Your task to perform on an android device: Open CNN.com Image 0: 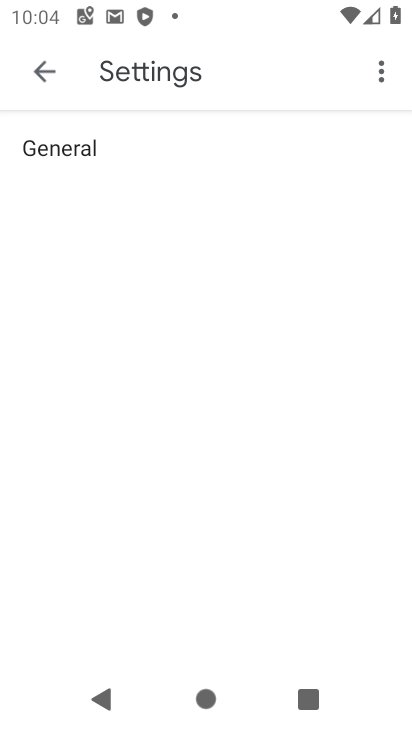
Step 0: press home button
Your task to perform on an android device: Open CNN.com Image 1: 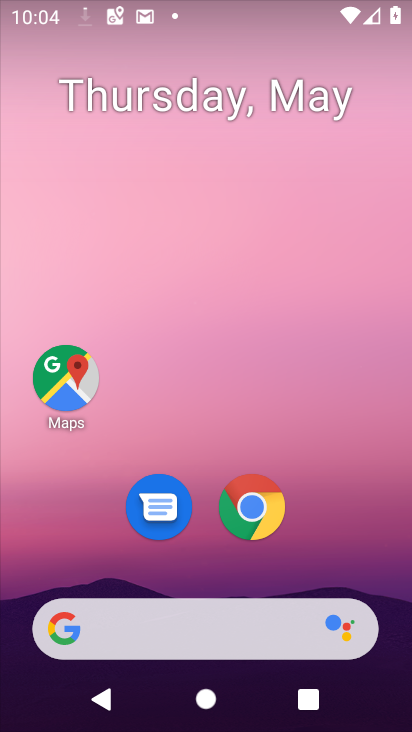
Step 1: click (258, 524)
Your task to perform on an android device: Open CNN.com Image 2: 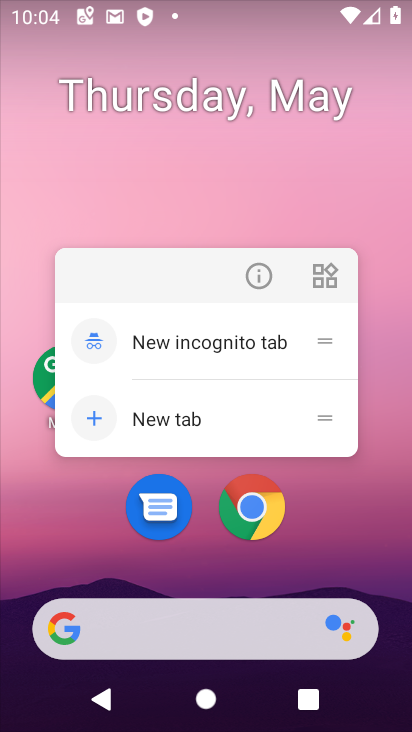
Step 2: click (263, 511)
Your task to perform on an android device: Open CNN.com Image 3: 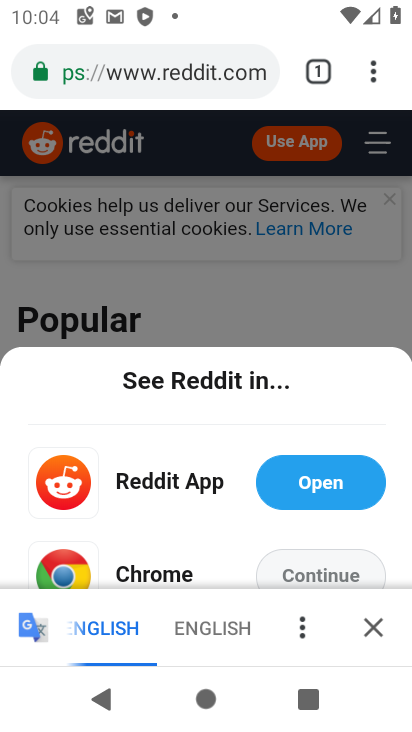
Step 3: click (313, 73)
Your task to perform on an android device: Open CNN.com Image 4: 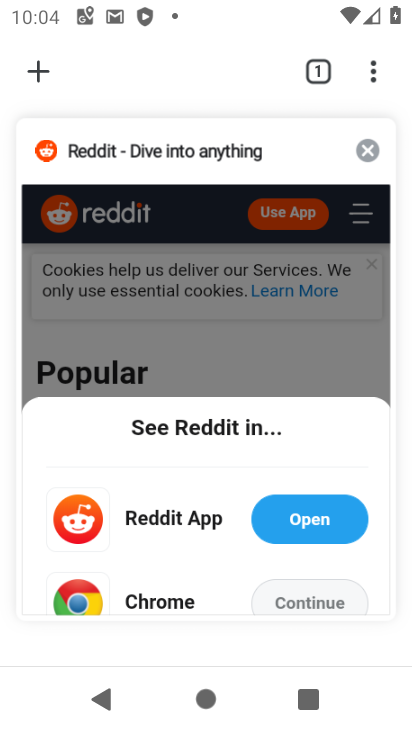
Step 4: click (371, 154)
Your task to perform on an android device: Open CNN.com Image 5: 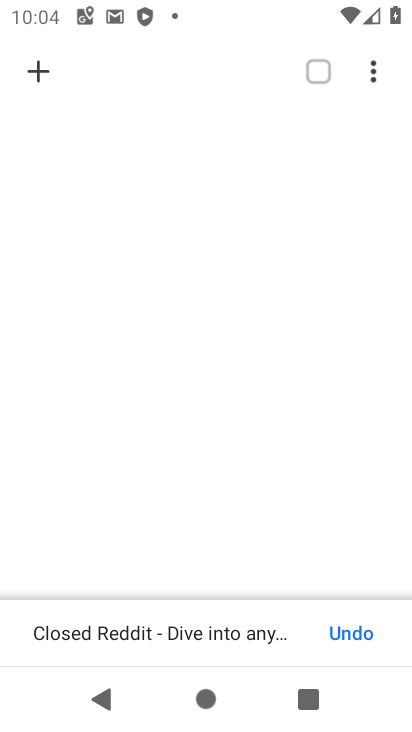
Step 5: click (36, 75)
Your task to perform on an android device: Open CNN.com Image 6: 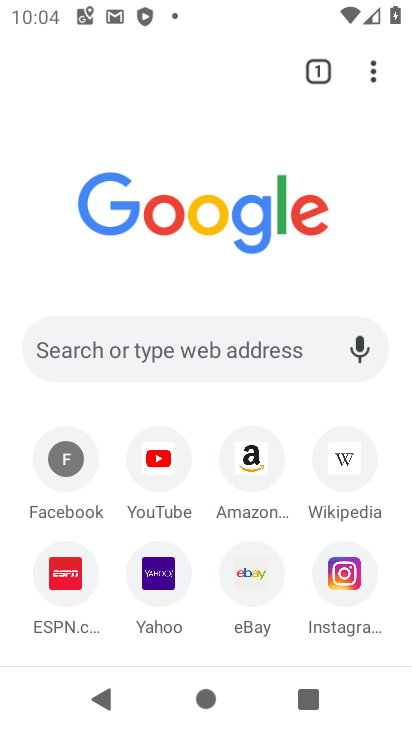
Step 6: click (252, 340)
Your task to perform on an android device: Open CNN.com Image 7: 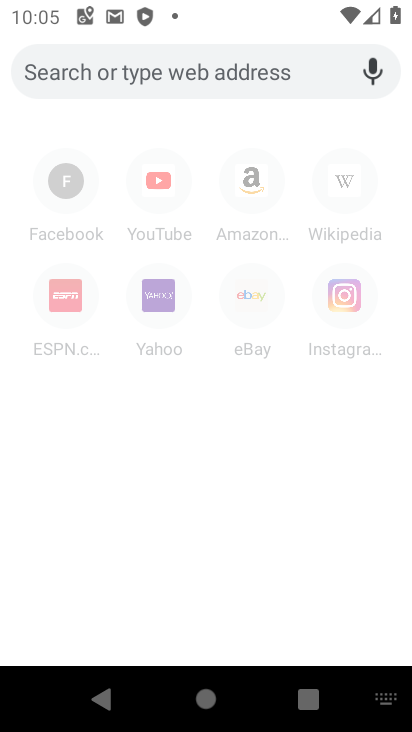
Step 7: type "cnn.com"
Your task to perform on an android device: Open CNN.com Image 8: 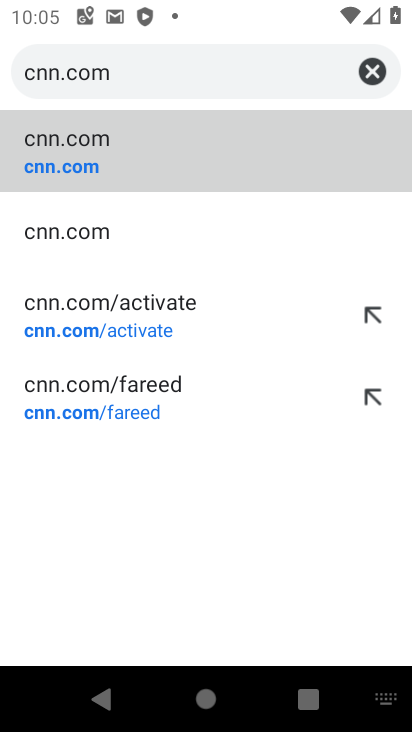
Step 8: click (135, 158)
Your task to perform on an android device: Open CNN.com Image 9: 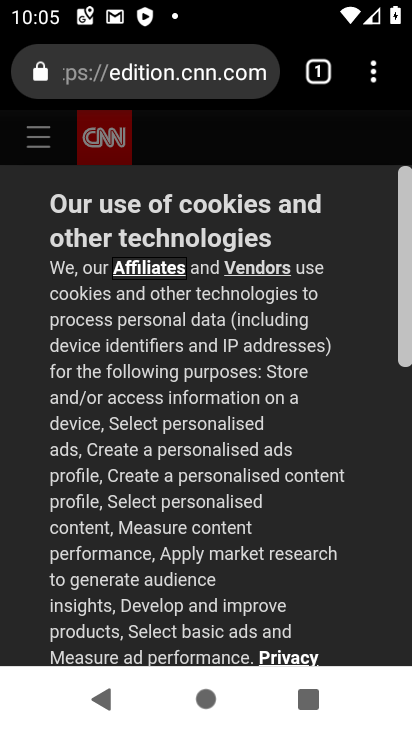
Step 9: task complete